Your task to perform on an android device: Open the map Image 0: 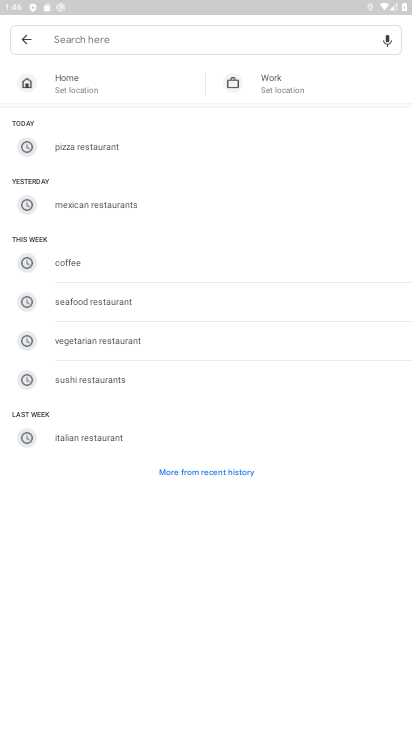
Step 0: click (404, 481)
Your task to perform on an android device: Open the map Image 1: 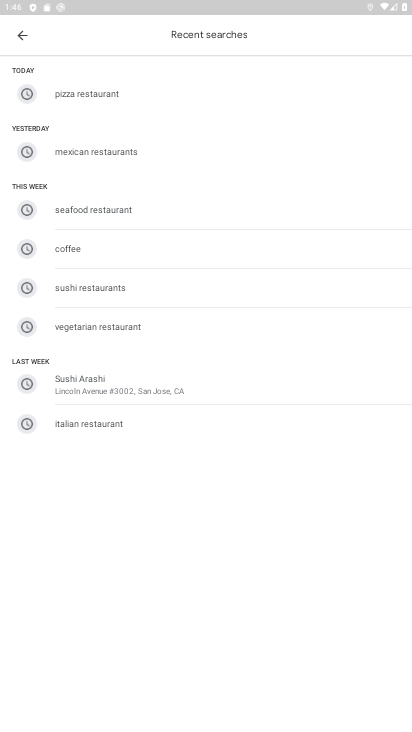
Step 1: click (24, 37)
Your task to perform on an android device: Open the map Image 2: 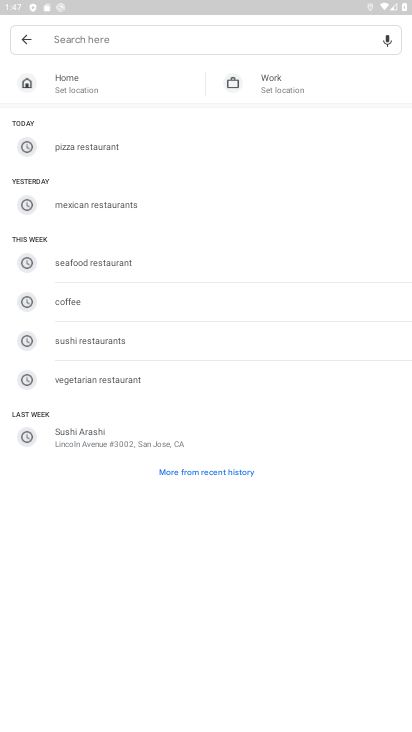
Step 2: click (28, 44)
Your task to perform on an android device: Open the map Image 3: 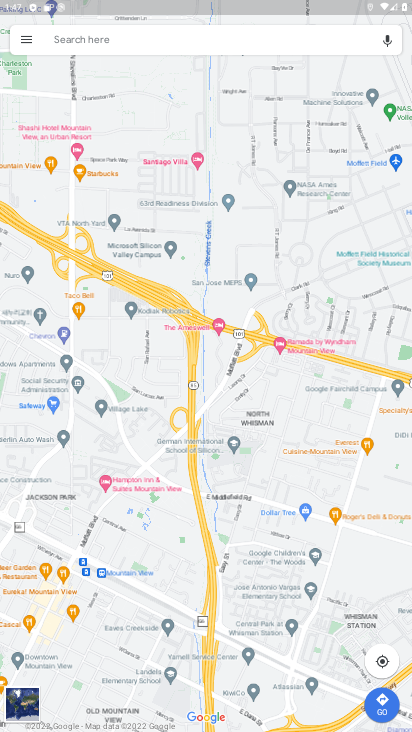
Step 3: task complete